Your task to perform on an android device: Go to display settings Image 0: 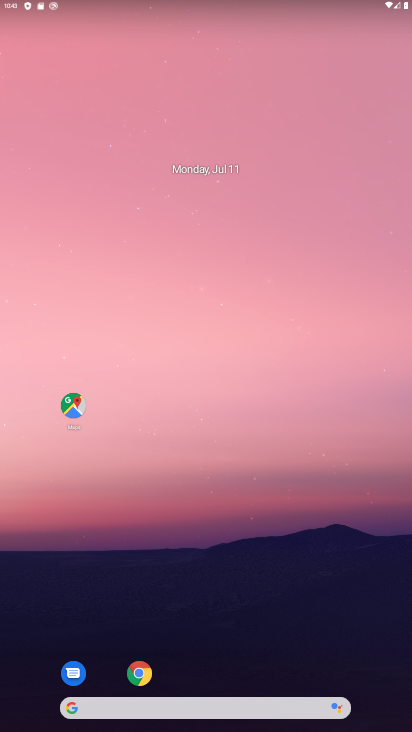
Step 0: drag from (213, 683) to (275, 242)
Your task to perform on an android device: Go to display settings Image 1: 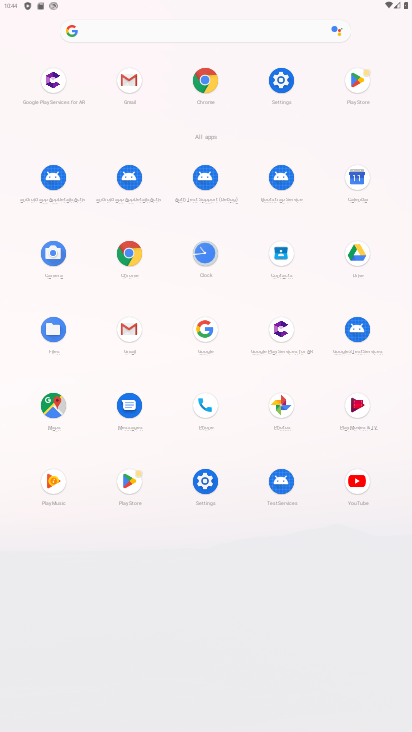
Step 1: click (209, 486)
Your task to perform on an android device: Go to display settings Image 2: 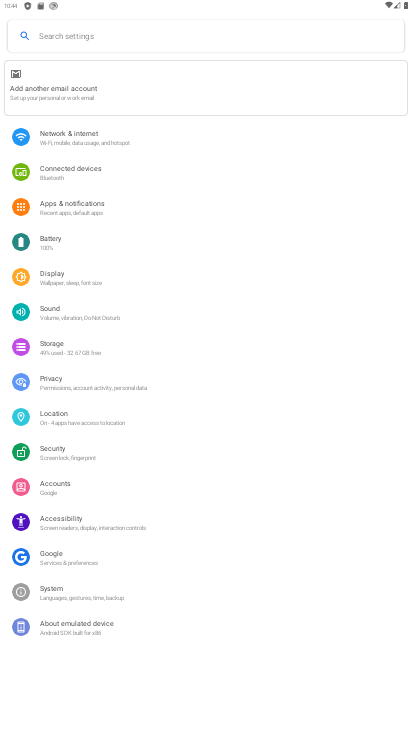
Step 2: click (81, 275)
Your task to perform on an android device: Go to display settings Image 3: 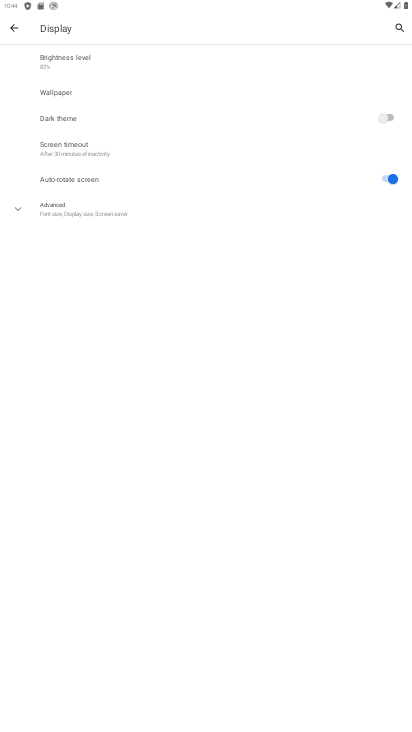
Step 3: task complete